Your task to perform on an android device: Open network settings Image 0: 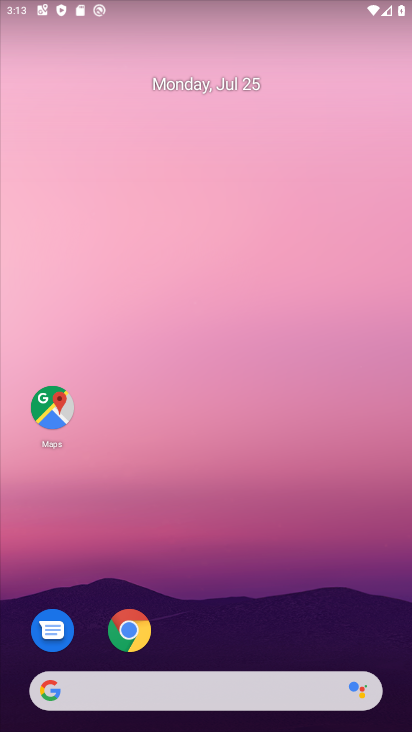
Step 0: drag from (235, 674) to (206, 267)
Your task to perform on an android device: Open network settings Image 1: 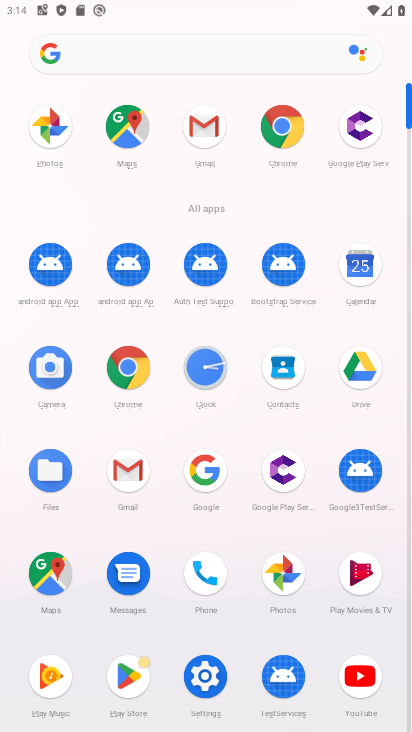
Step 1: click (204, 669)
Your task to perform on an android device: Open network settings Image 2: 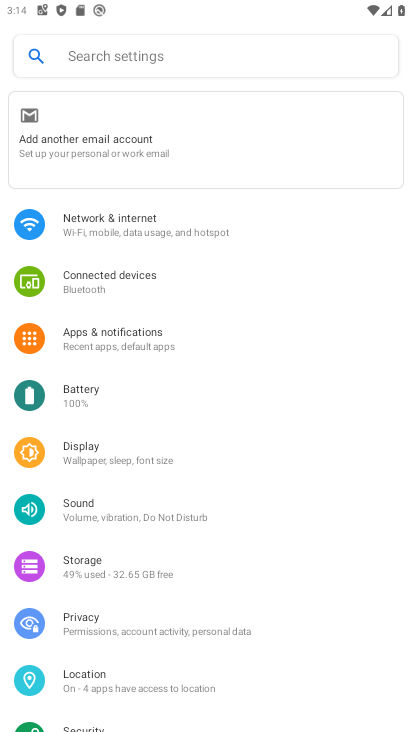
Step 2: click (132, 215)
Your task to perform on an android device: Open network settings Image 3: 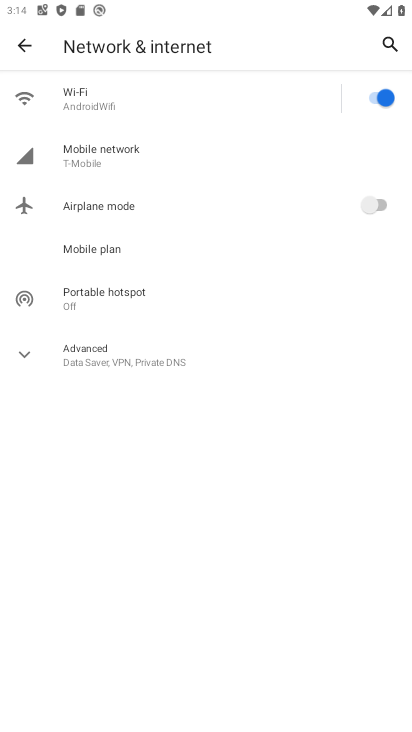
Step 3: task complete